Your task to perform on an android device: Open my contact list Image 0: 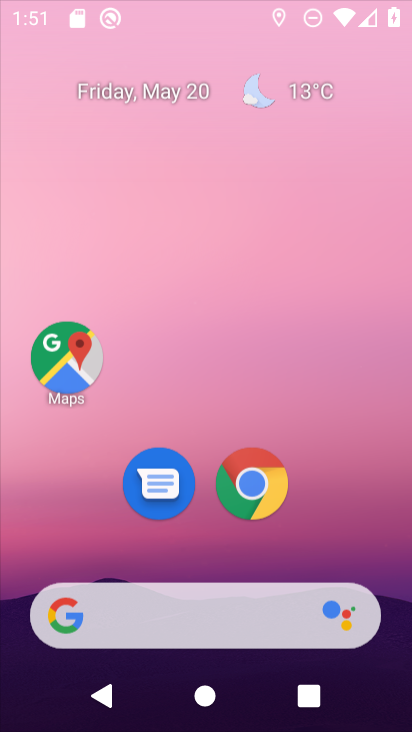
Step 0: press home button
Your task to perform on an android device: Open my contact list Image 1: 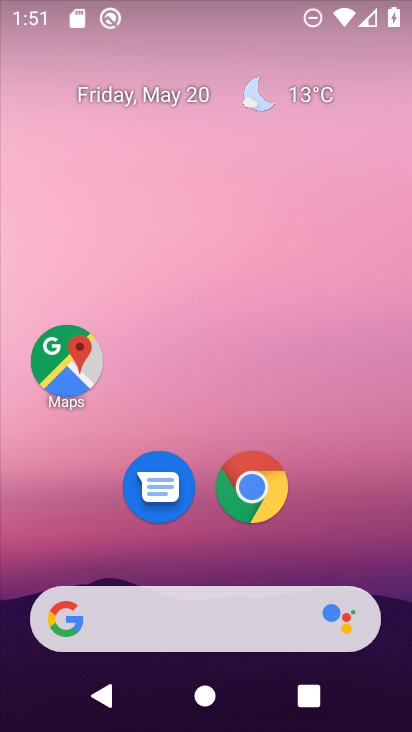
Step 1: drag from (217, 557) to (251, 193)
Your task to perform on an android device: Open my contact list Image 2: 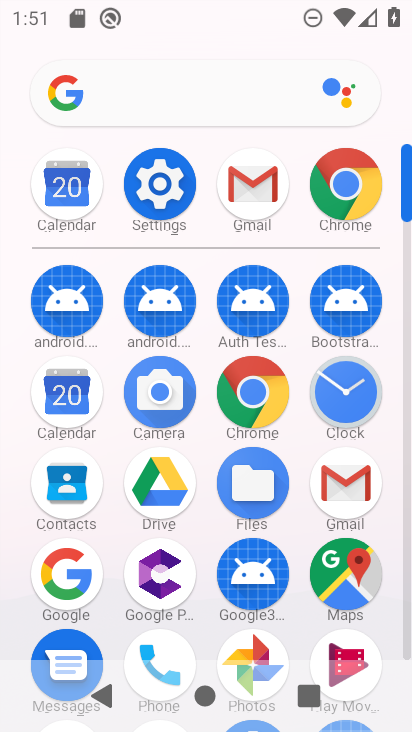
Step 2: click (61, 477)
Your task to perform on an android device: Open my contact list Image 3: 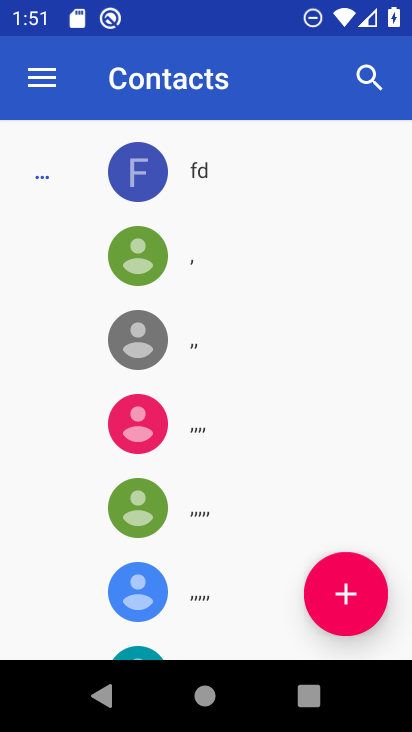
Step 3: task complete